Your task to perform on an android device: delete browsing data in the chrome app Image 0: 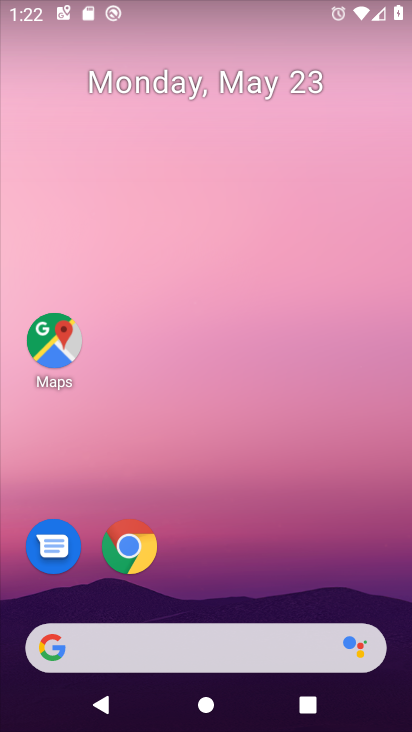
Step 0: drag from (214, 619) to (264, 104)
Your task to perform on an android device: delete browsing data in the chrome app Image 1: 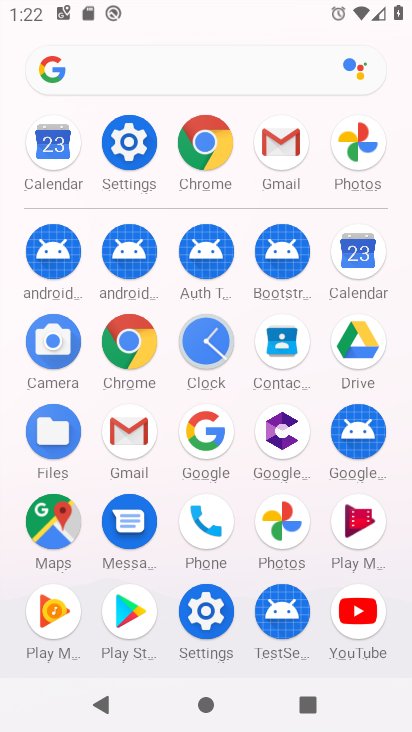
Step 1: click (206, 160)
Your task to perform on an android device: delete browsing data in the chrome app Image 2: 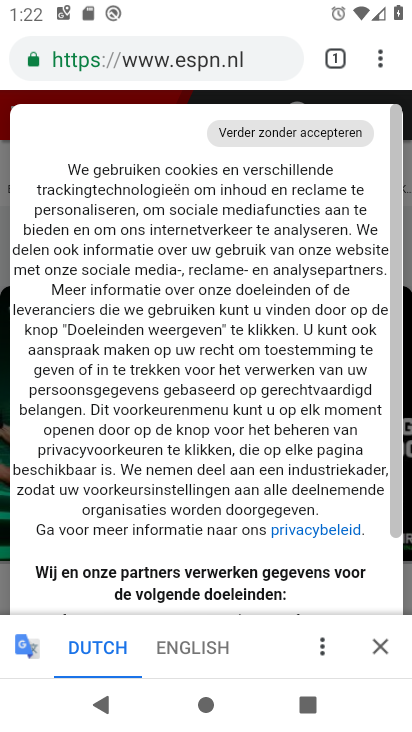
Step 2: click (383, 645)
Your task to perform on an android device: delete browsing data in the chrome app Image 3: 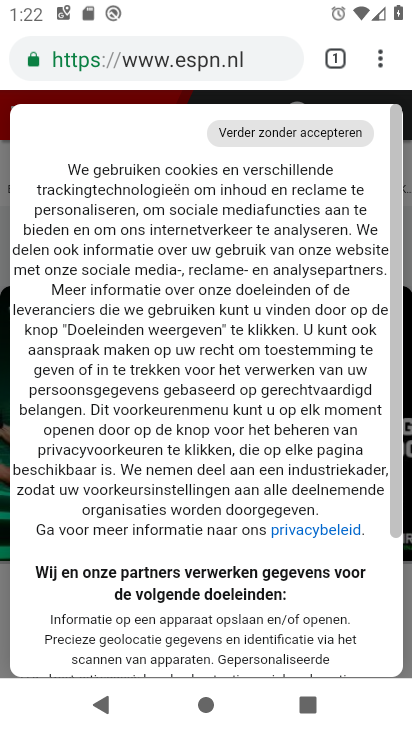
Step 3: click (332, 102)
Your task to perform on an android device: delete browsing data in the chrome app Image 4: 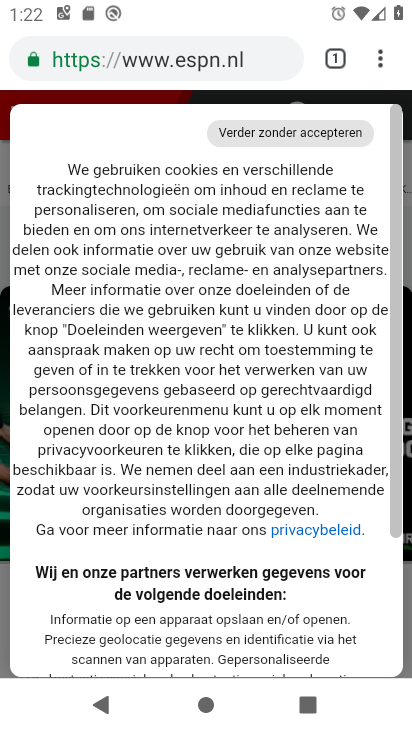
Step 4: click (333, 101)
Your task to perform on an android device: delete browsing data in the chrome app Image 5: 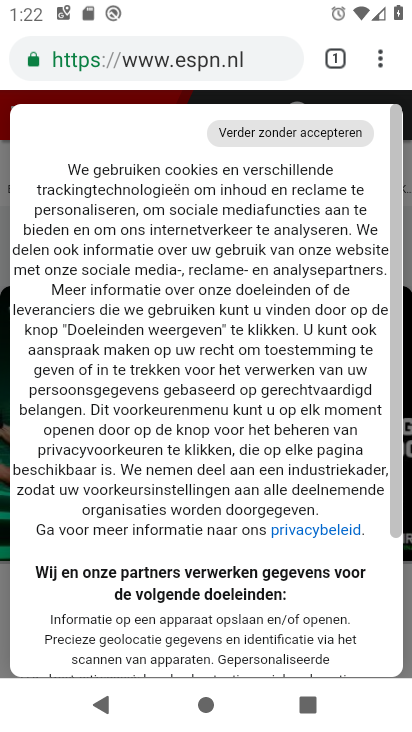
Step 5: click (337, 97)
Your task to perform on an android device: delete browsing data in the chrome app Image 6: 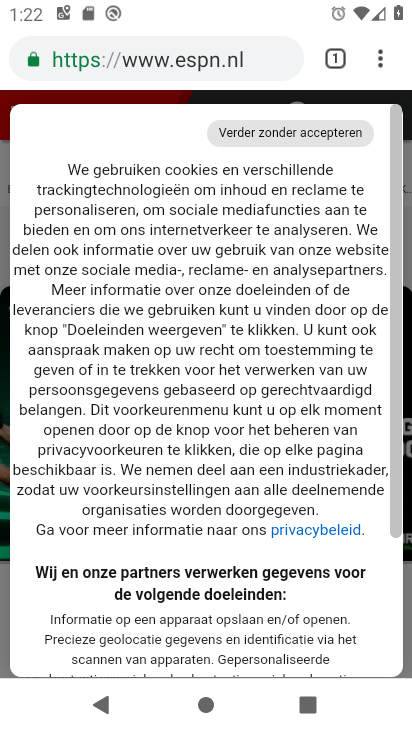
Step 6: click (374, 61)
Your task to perform on an android device: delete browsing data in the chrome app Image 7: 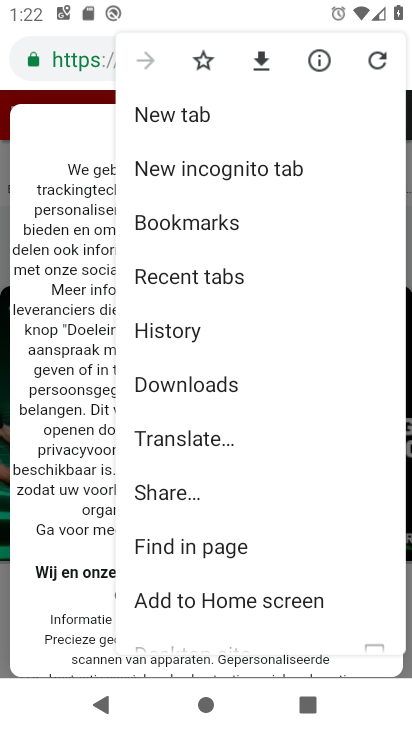
Step 7: drag from (237, 495) to (250, 341)
Your task to perform on an android device: delete browsing data in the chrome app Image 8: 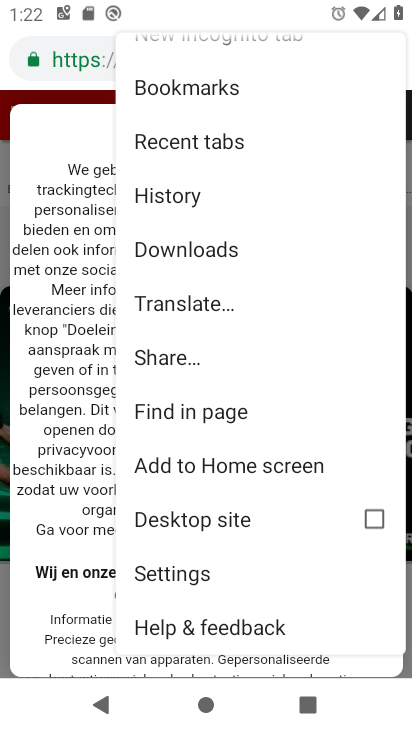
Step 8: click (201, 199)
Your task to perform on an android device: delete browsing data in the chrome app Image 9: 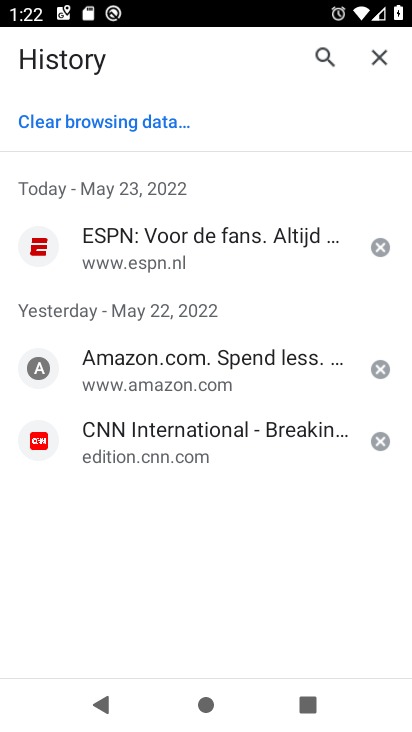
Step 9: click (132, 132)
Your task to perform on an android device: delete browsing data in the chrome app Image 10: 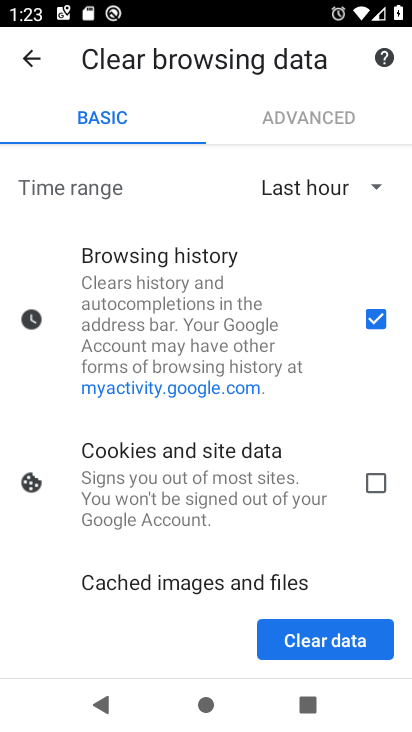
Step 10: click (335, 646)
Your task to perform on an android device: delete browsing data in the chrome app Image 11: 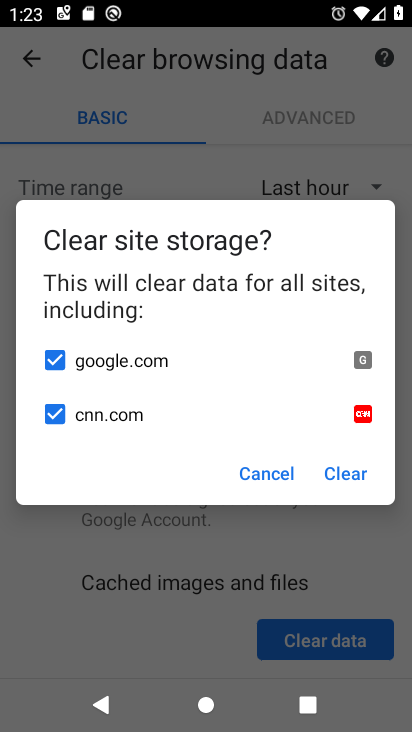
Step 11: click (332, 477)
Your task to perform on an android device: delete browsing data in the chrome app Image 12: 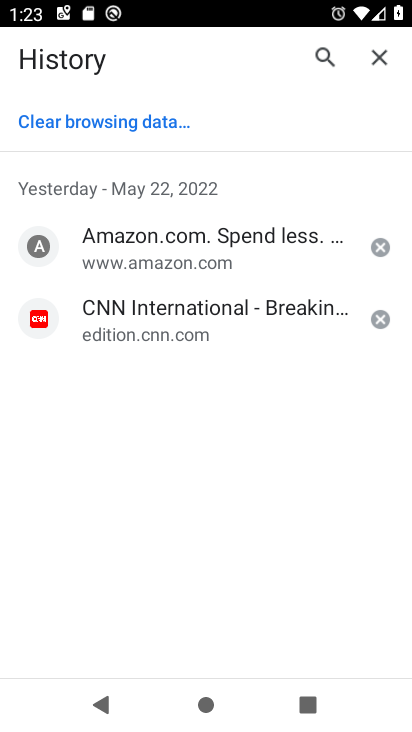
Step 12: task complete